Your task to perform on an android device: open wifi settings Image 0: 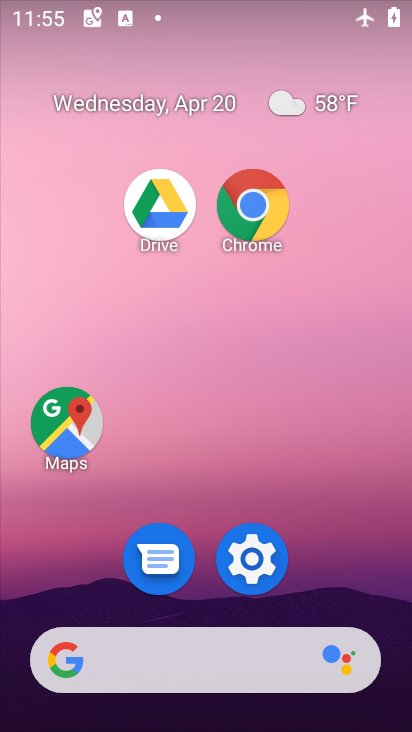
Step 0: drag from (349, 603) to (317, 12)
Your task to perform on an android device: open wifi settings Image 1: 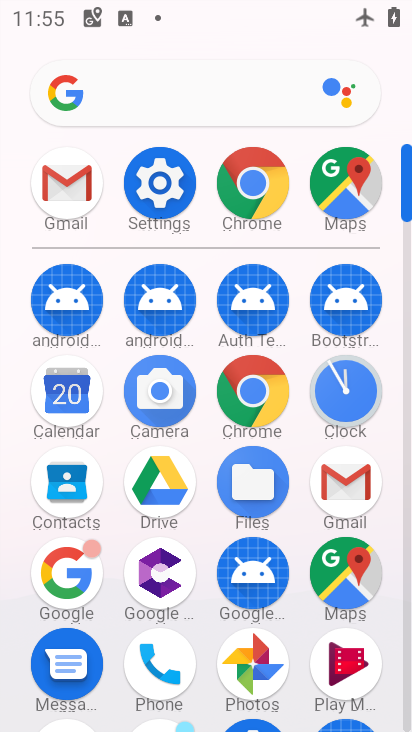
Step 1: drag from (190, 632) to (166, 153)
Your task to perform on an android device: open wifi settings Image 2: 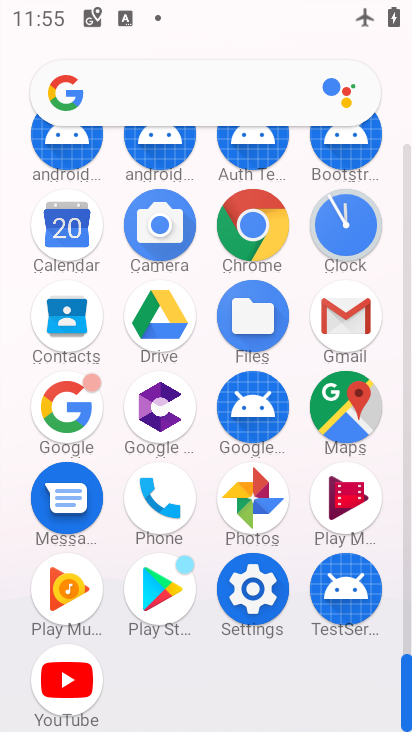
Step 2: click (263, 587)
Your task to perform on an android device: open wifi settings Image 3: 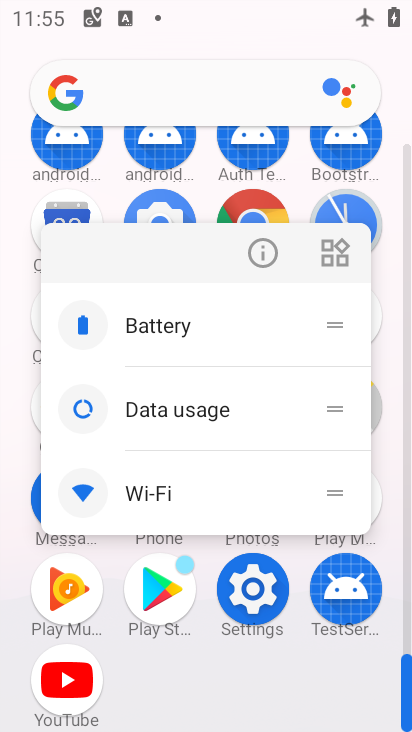
Step 3: click (262, 587)
Your task to perform on an android device: open wifi settings Image 4: 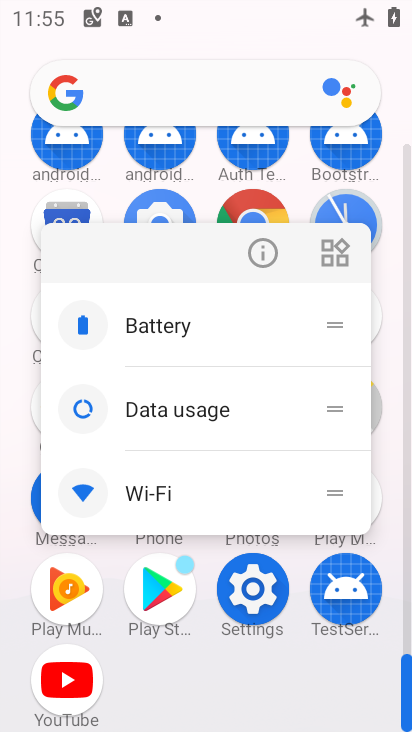
Step 4: click (262, 587)
Your task to perform on an android device: open wifi settings Image 5: 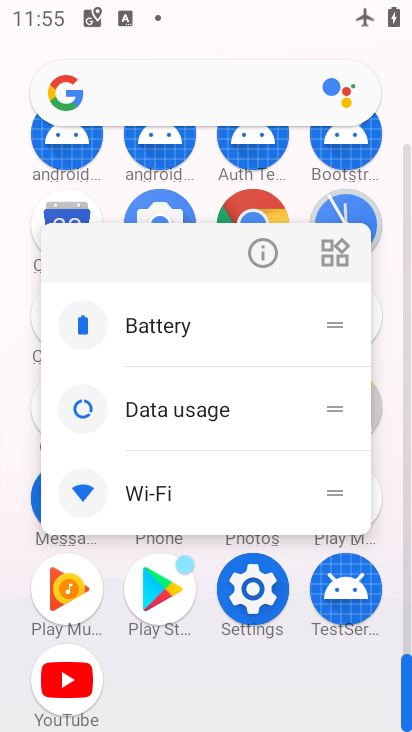
Step 5: click (237, 586)
Your task to perform on an android device: open wifi settings Image 6: 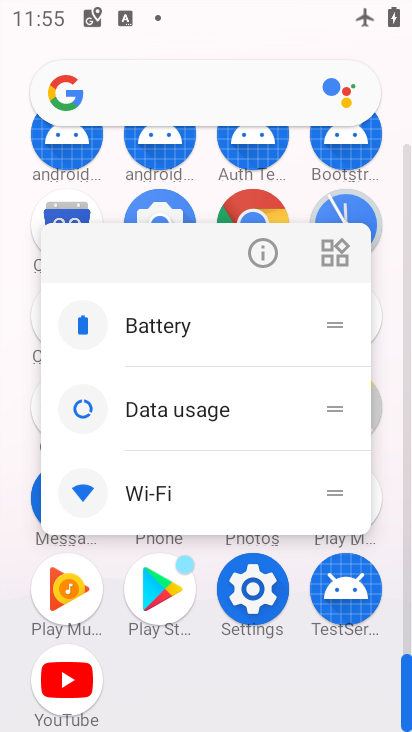
Step 6: click (237, 585)
Your task to perform on an android device: open wifi settings Image 7: 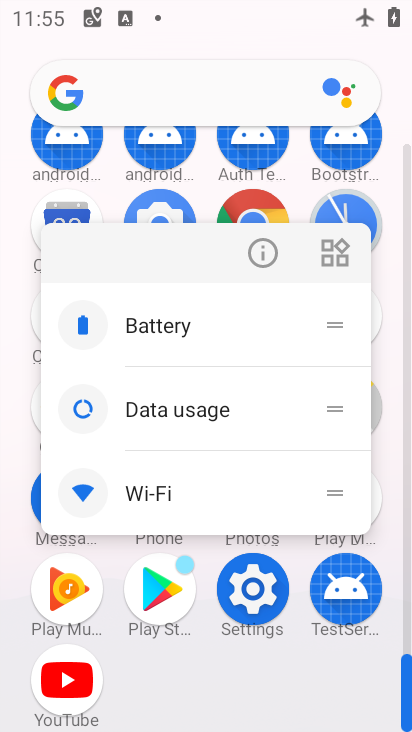
Step 7: click (237, 585)
Your task to perform on an android device: open wifi settings Image 8: 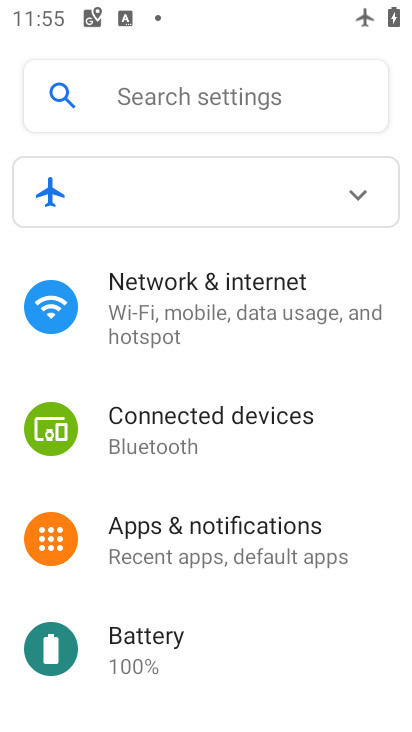
Step 8: click (179, 311)
Your task to perform on an android device: open wifi settings Image 9: 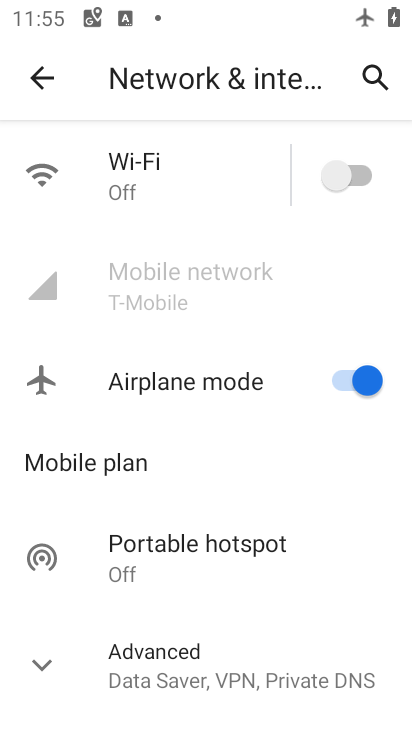
Step 9: click (146, 181)
Your task to perform on an android device: open wifi settings Image 10: 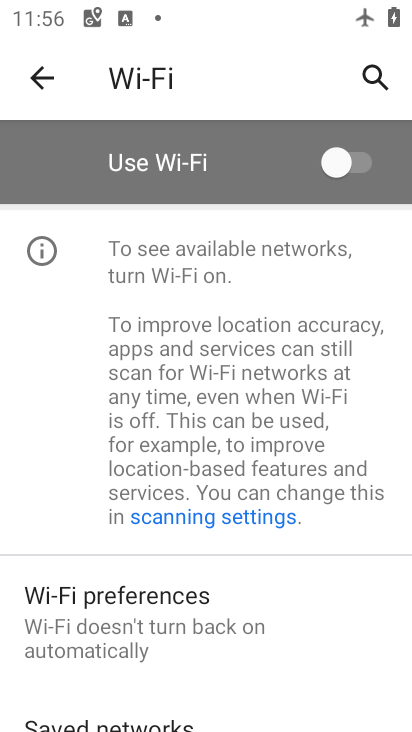
Step 10: click (41, 82)
Your task to perform on an android device: open wifi settings Image 11: 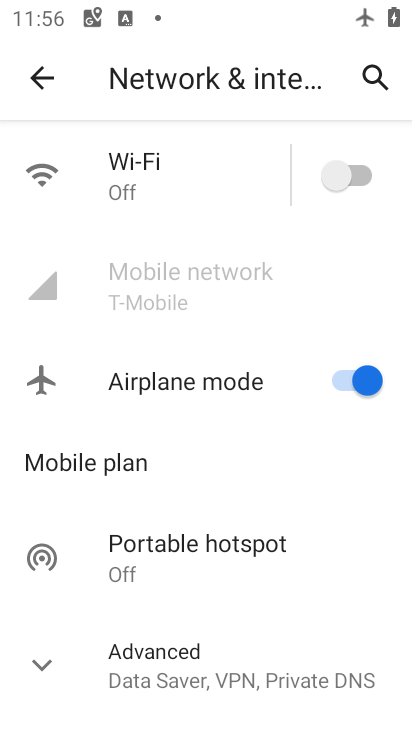
Step 11: click (354, 171)
Your task to perform on an android device: open wifi settings Image 12: 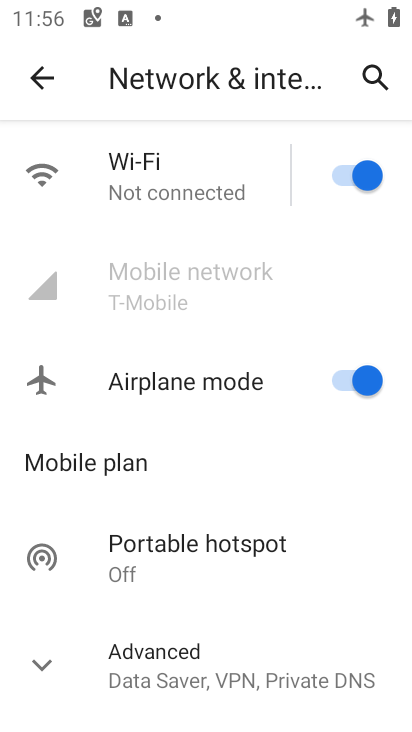
Step 12: task complete